Your task to perform on an android device: open app "Indeed Job Search" Image 0: 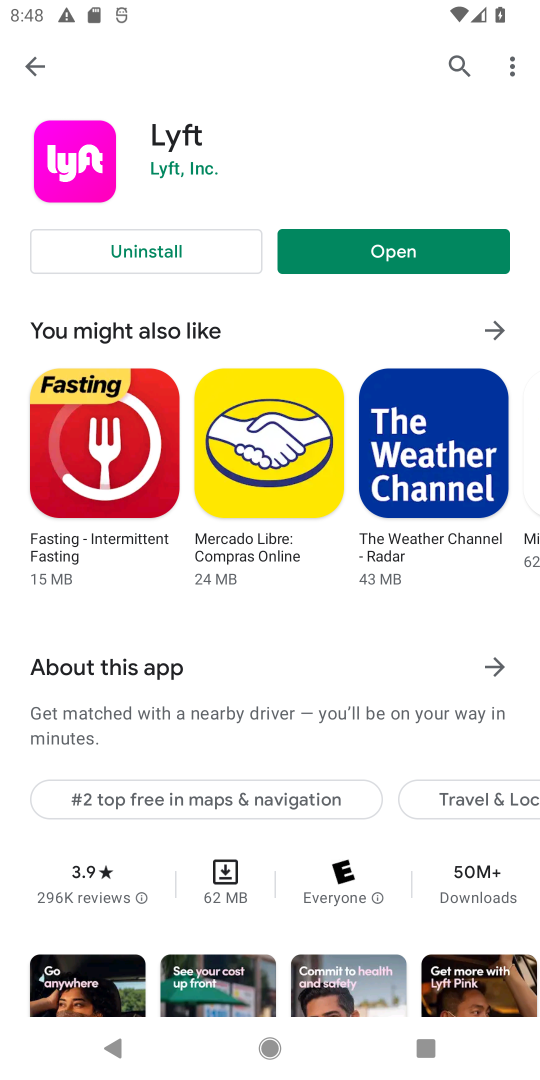
Step 0: press home button
Your task to perform on an android device: open app "Indeed Job Search" Image 1: 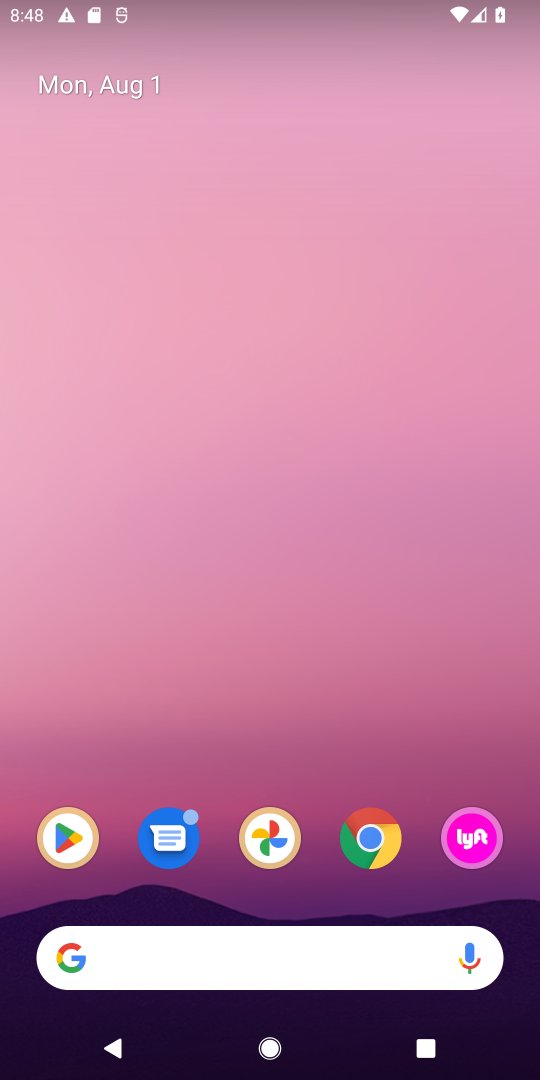
Step 1: drag from (212, 930) to (246, 14)
Your task to perform on an android device: open app "Indeed Job Search" Image 2: 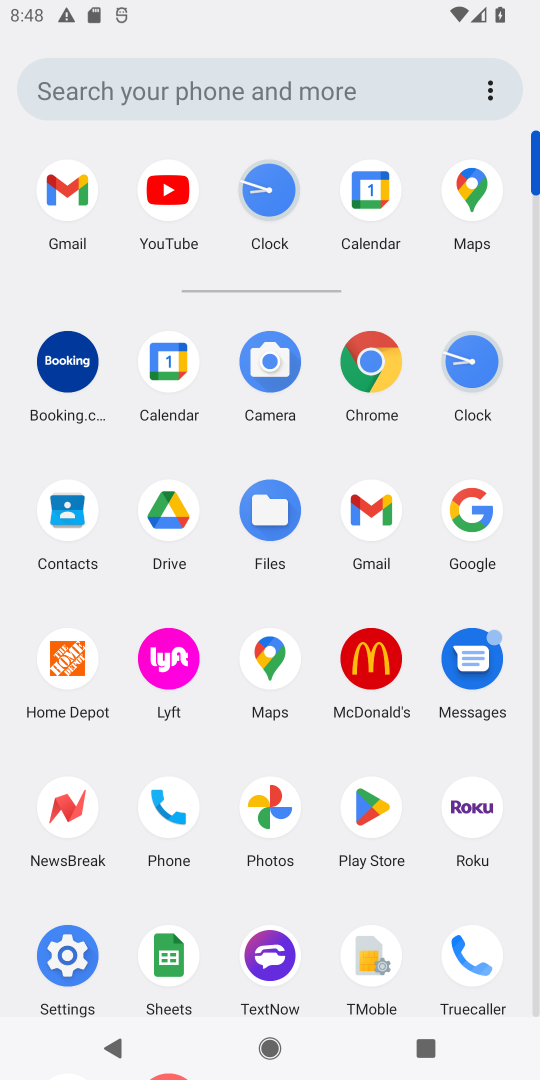
Step 2: click (377, 810)
Your task to perform on an android device: open app "Indeed Job Search" Image 3: 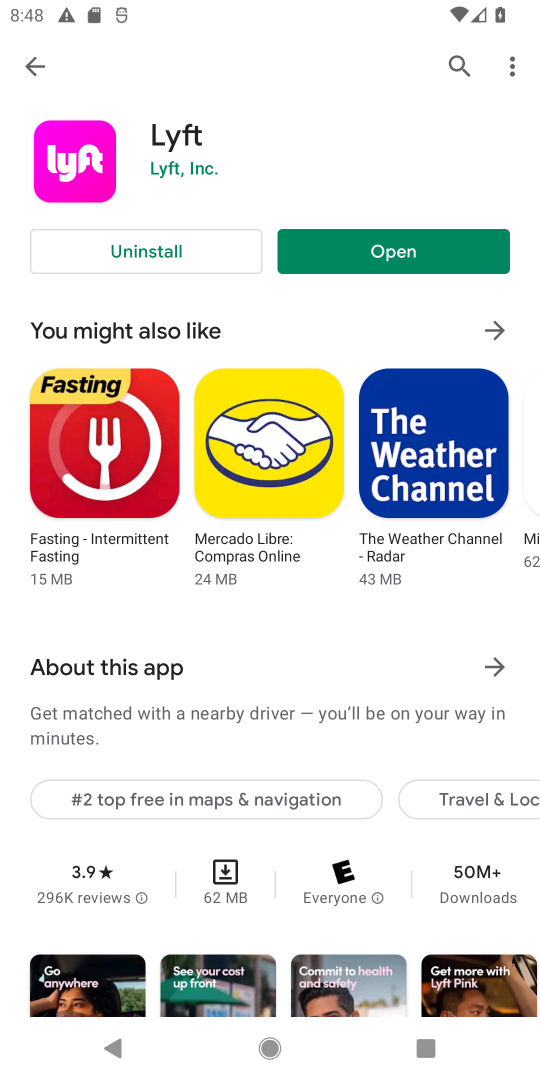
Step 3: click (445, 60)
Your task to perform on an android device: open app "Indeed Job Search" Image 4: 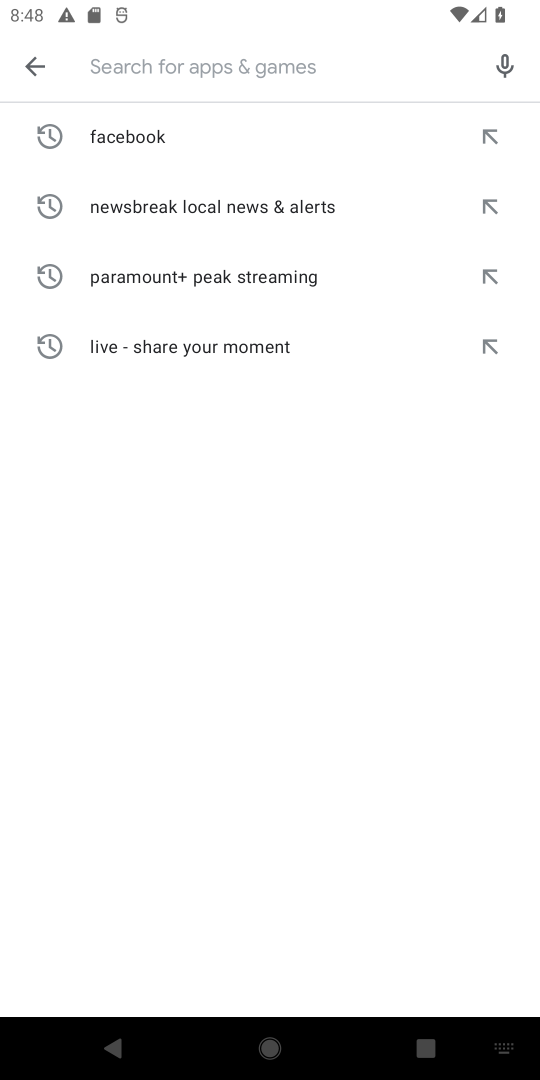
Step 4: type "indeed  job search"
Your task to perform on an android device: open app "Indeed Job Search" Image 5: 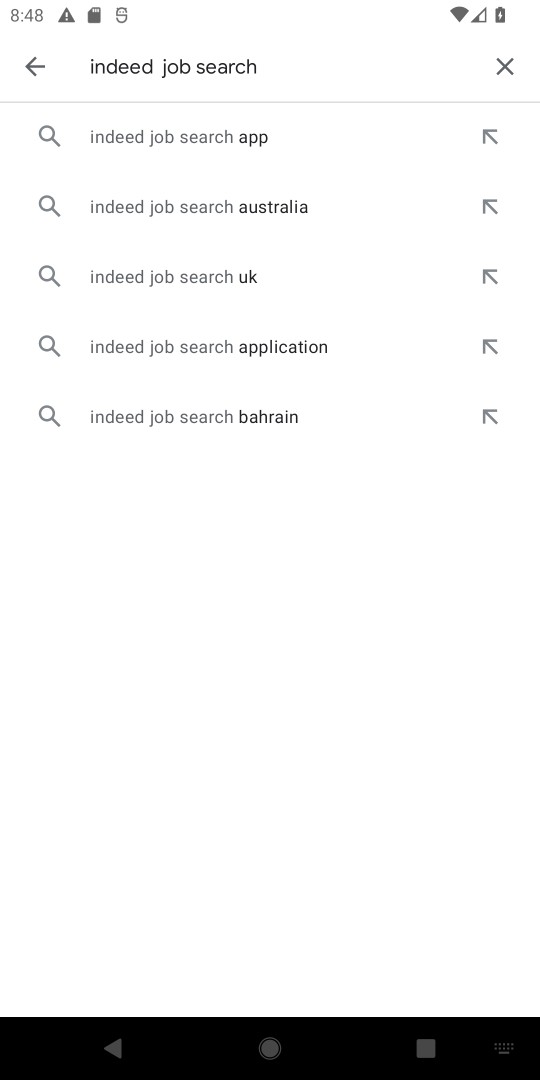
Step 5: click (223, 142)
Your task to perform on an android device: open app "Indeed Job Search" Image 6: 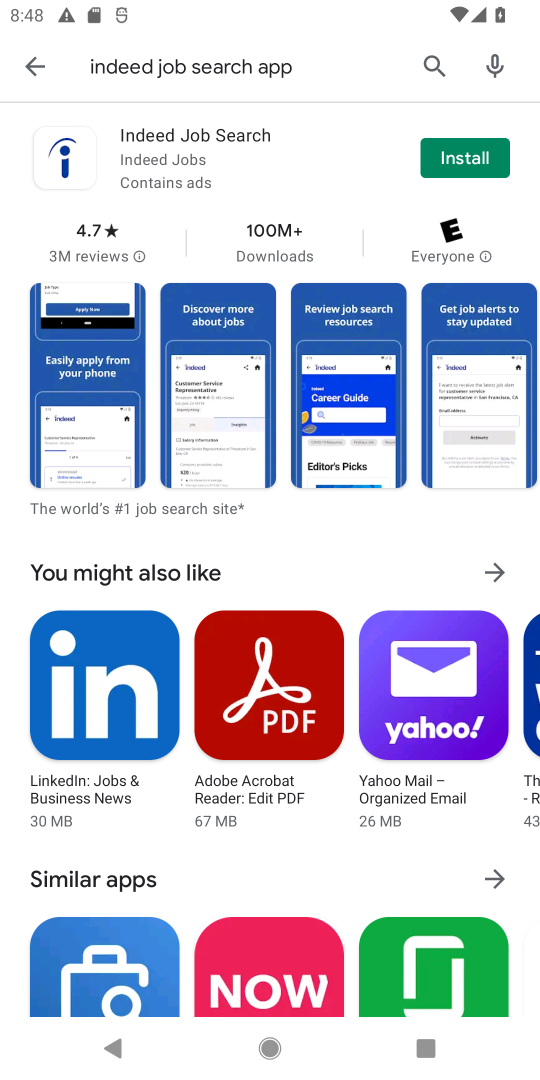
Step 6: task complete